Your task to perform on an android device: Open maps Image 0: 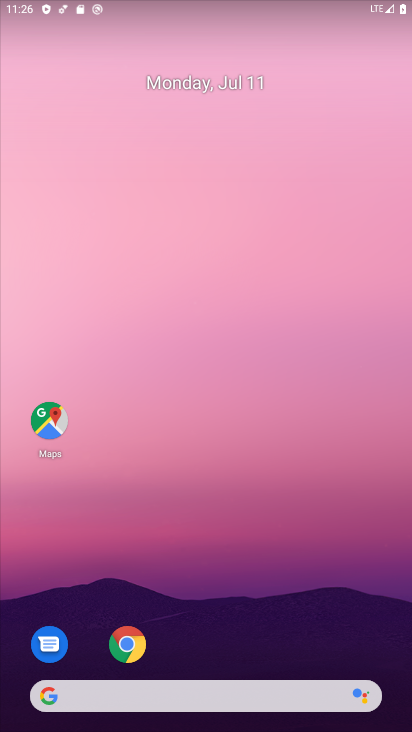
Step 0: click (53, 406)
Your task to perform on an android device: Open maps Image 1: 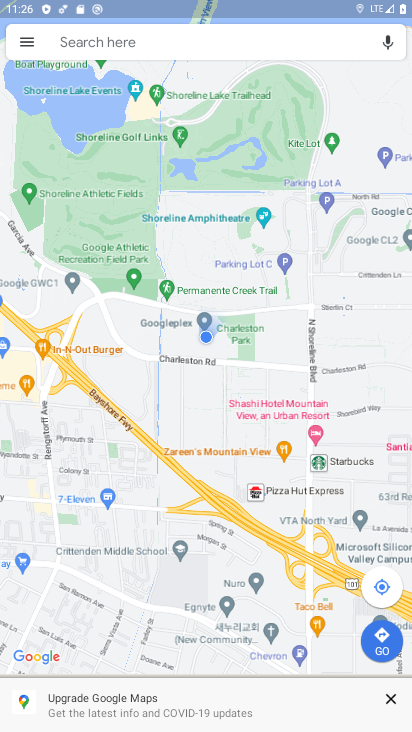
Step 1: task complete